Your task to perform on an android device: Open Chrome and go to settings Image 0: 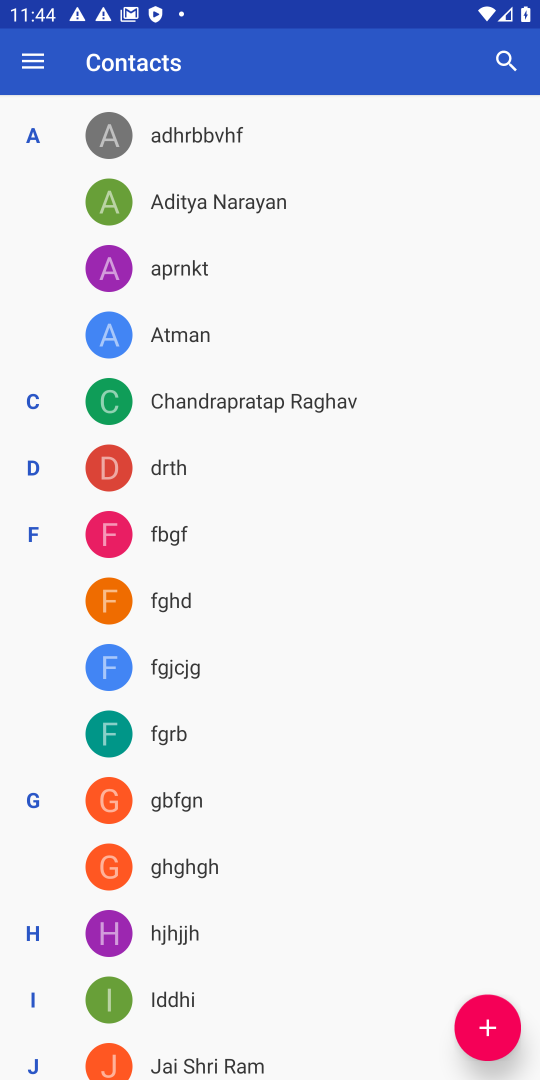
Step 0: press home button
Your task to perform on an android device: Open Chrome and go to settings Image 1: 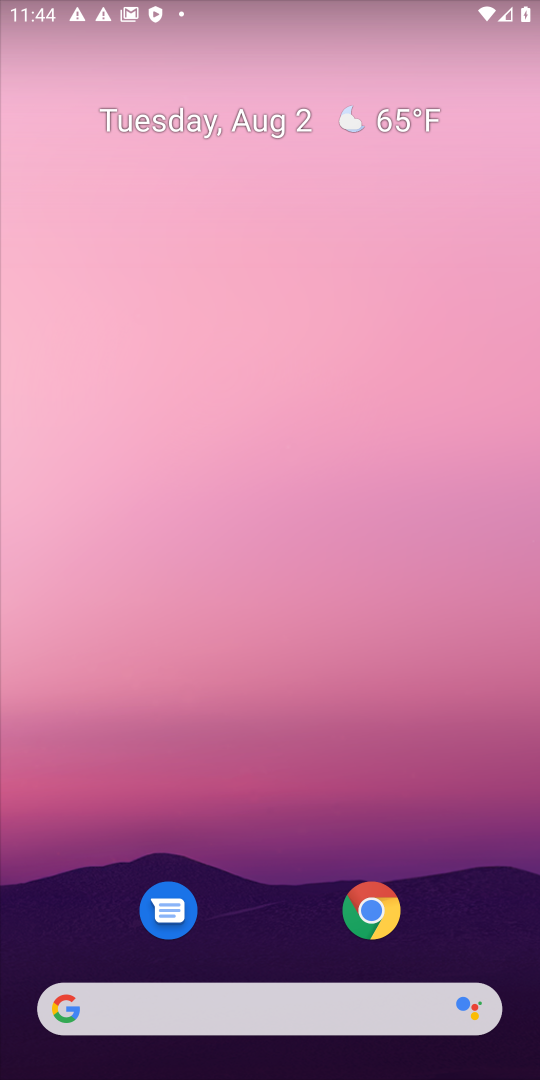
Step 1: click (390, 923)
Your task to perform on an android device: Open Chrome and go to settings Image 2: 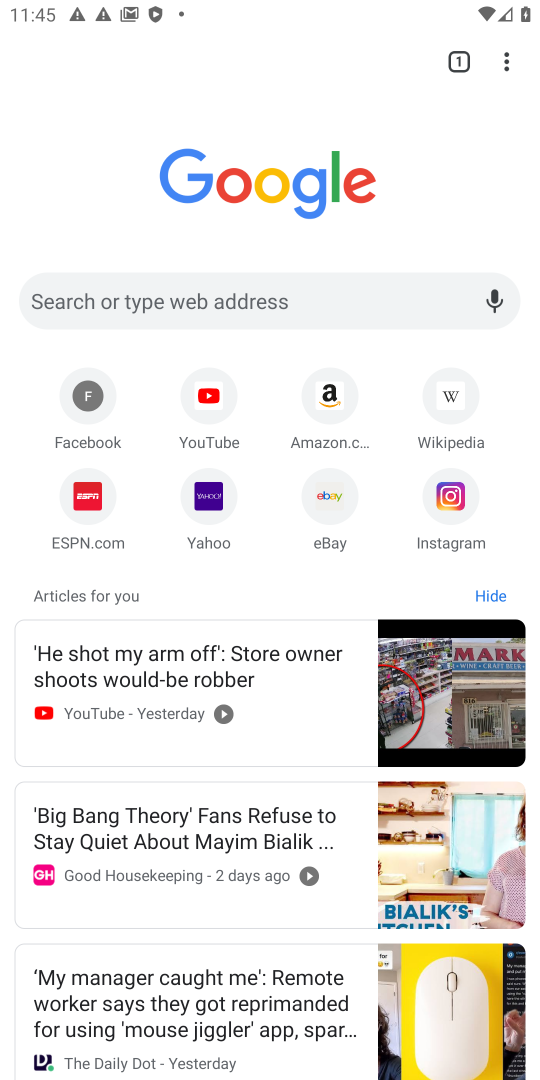
Step 2: task complete